Your task to perform on an android device: clear all cookies in the chrome app Image 0: 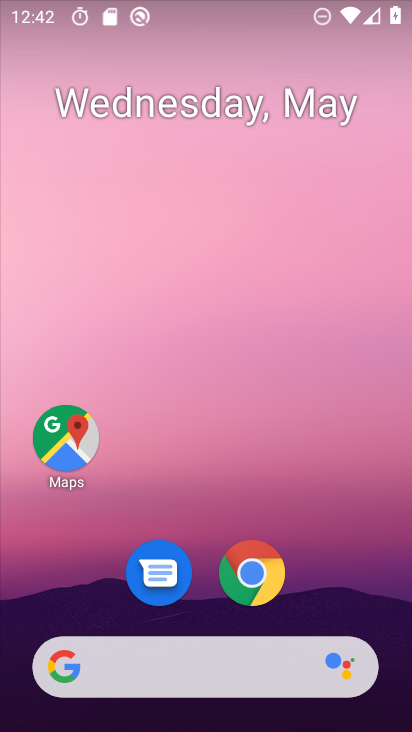
Step 0: drag from (355, 583) to (253, 45)
Your task to perform on an android device: clear all cookies in the chrome app Image 1: 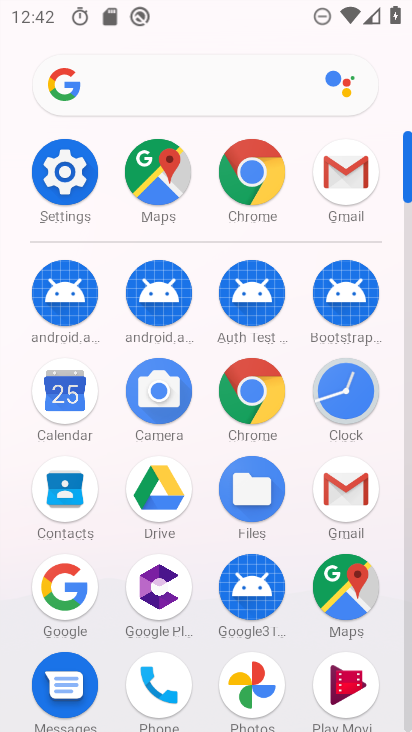
Step 1: click (247, 388)
Your task to perform on an android device: clear all cookies in the chrome app Image 2: 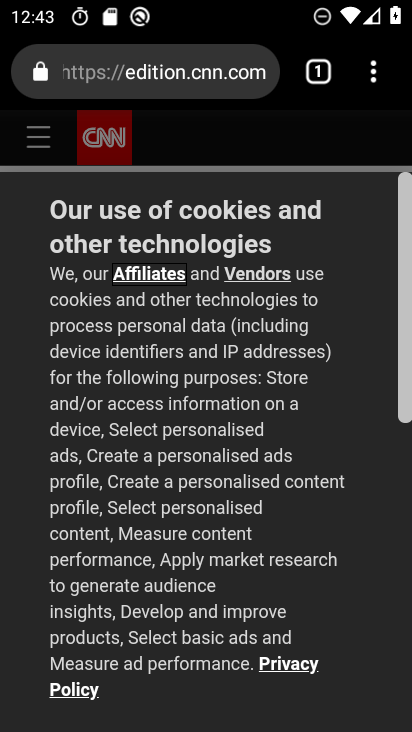
Step 2: drag from (369, 74) to (138, 569)
Your task to perform on an android device: clear all cookies in the chrome app Image 3: 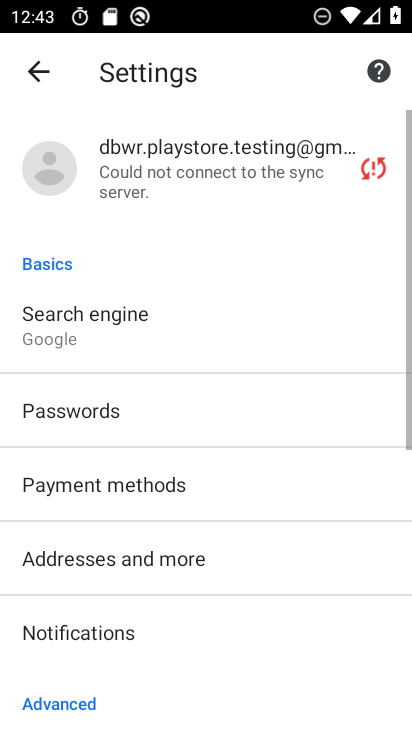
Step 3: drag from (182, 585) to (208, 260)
Your task to perform on an android device: clear all cookies in the chrome app Image 4: 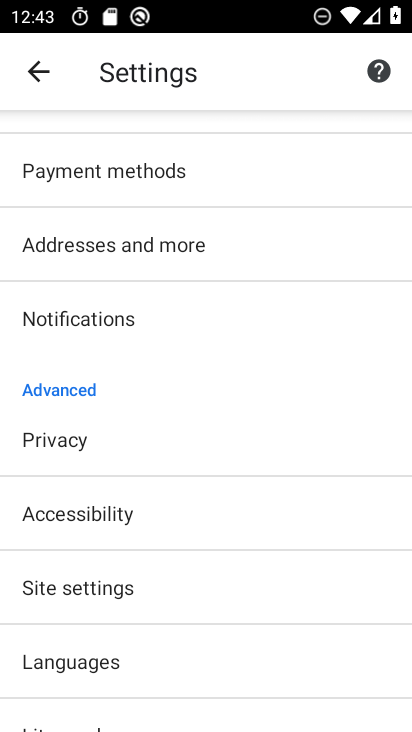
Step 4: click (99, 444)
Your task to perform on an android device: clear all cookies in the chrome app Image 5: 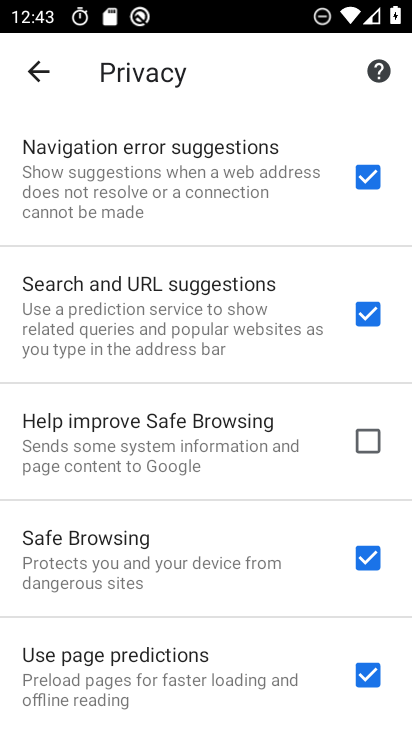
Step 5: drag from (168, 568) to (167, 101)
Your task to perform on an android device: clear all cookies in the chrome app Image 6: 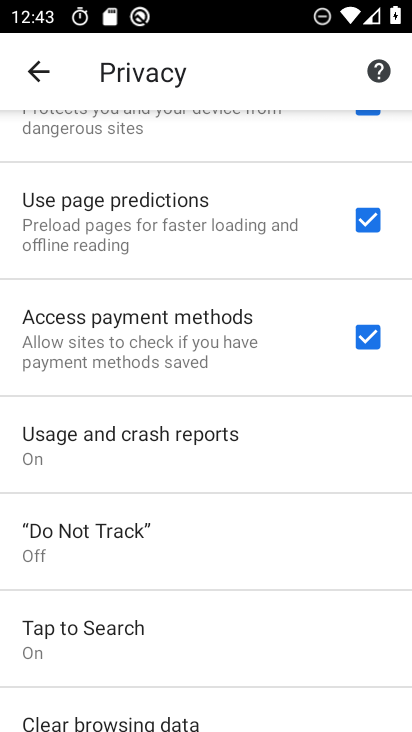
Step 6: drag from (186, 679) to (244, 272)
Your task to perform on an android device: clear all cookies in the chrome app Image 7: 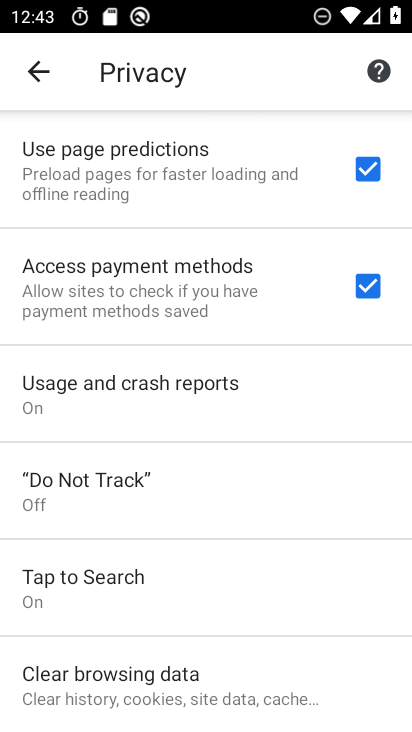
Step 7: click (177, 672)
Your task to perform on an android device: clear all cookies in the chrome app Image 8: 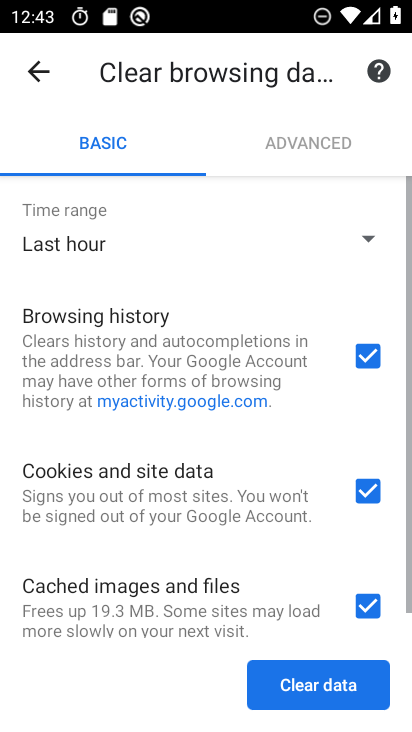
Step 8: click (369, 345)
Your task to perform on an android device: clear all cookies in the chrome app Image 9: 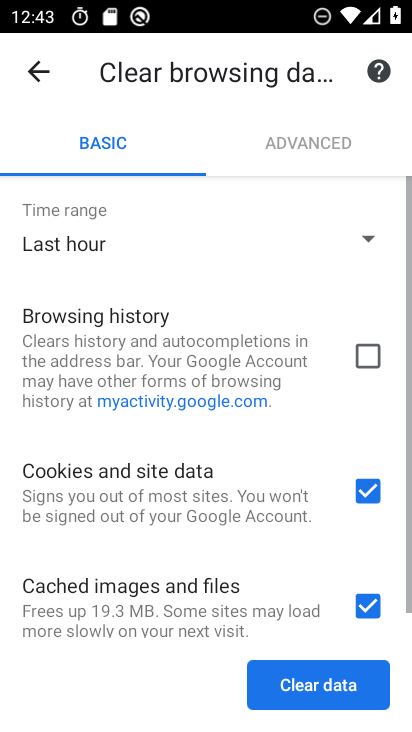
Step 9: click (370, 596)
Your task to perform on an android device: clear all cookies in the chrome app Image 10: 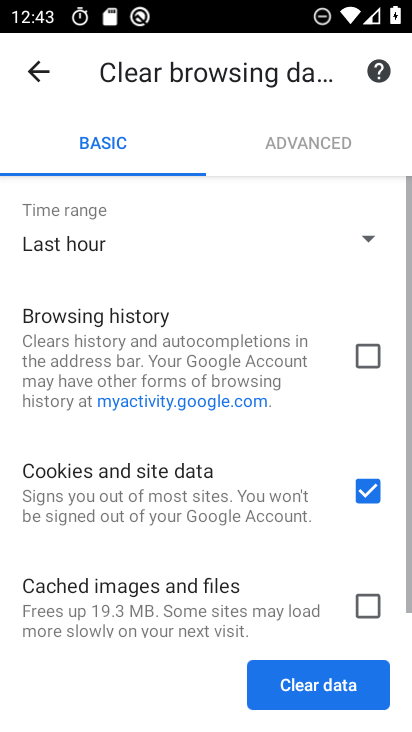
Step 10: click (318, 674)
Your task to perform on an android device: clear all cookies in the chrome app Image 11: 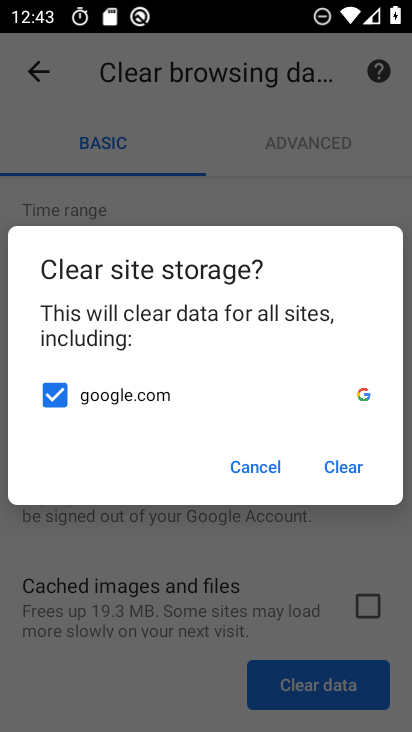
Step 11: click (351, 464)
Your task to perform on an android device: clear all cookies in the chrome app Image 12: 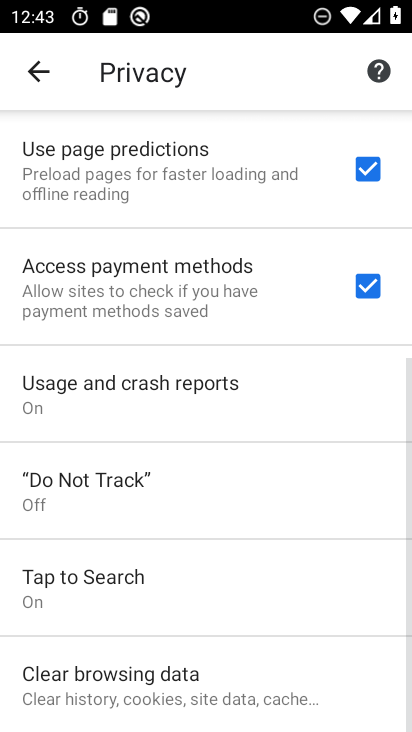
Step 12: task complete